Your task to perform on an android device: Is it going to rain tomorrow? Image 0: 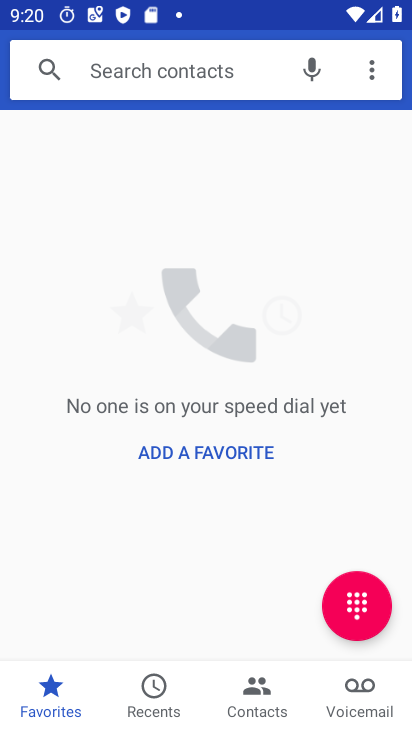
Step 0: press back button
Your task to perform on an android device: Is it going to rain tomorrow? Image 1: 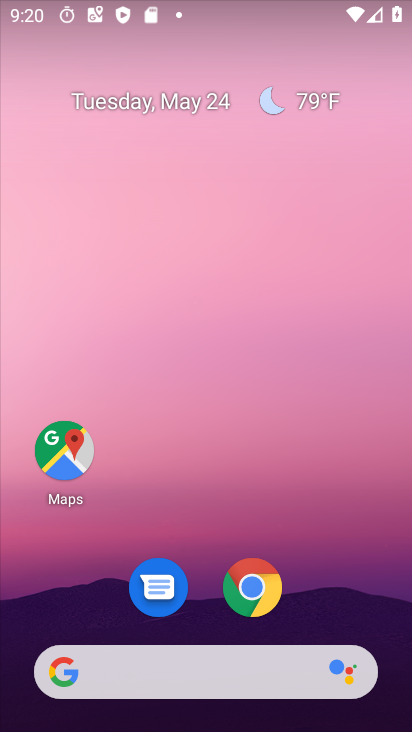
Step 1: drag from (331, 595) to (206, 97)
Your task to perform on an android device: Is it going to rain tomorrow? Image 2: 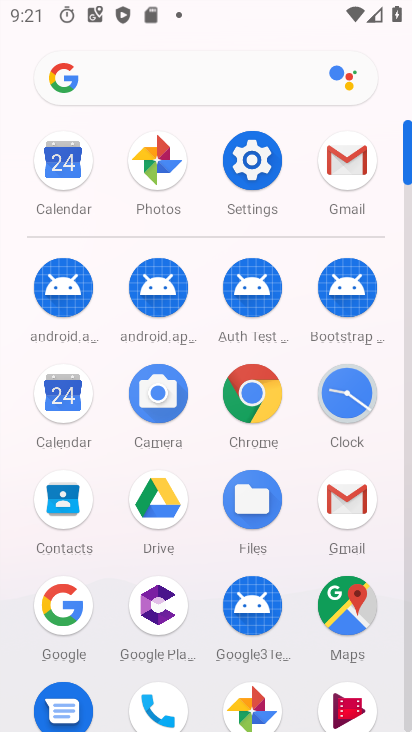
Step 2: click (60, 604)
Your task to perform on an android device: Is it going to rain tomorrow? Image 3: 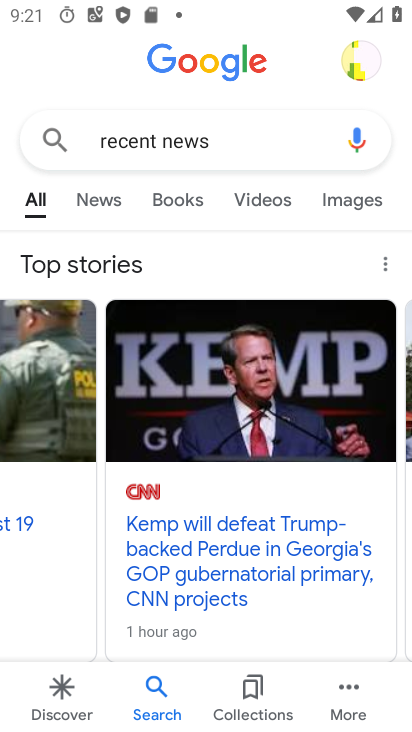
Step 3: click (239, 141)
Your task to perform on an android device: Is it going to rain tomorrow? Image 4: 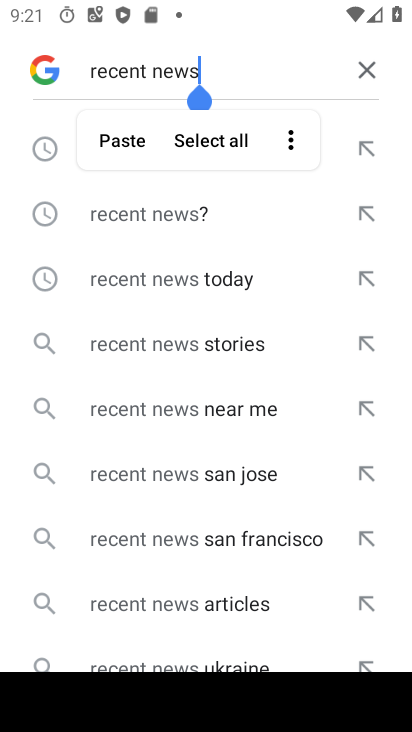
Step 4: click (372, 59)
Your task to perform on an android device: Is it going to rain tomorrow? Image 5: 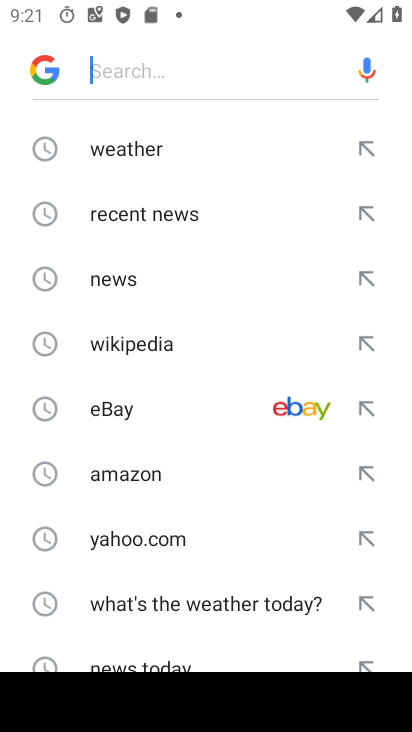
Step 5: type "Is it going to rain tomorrow"
Your task to perform on an android device: Is it going to rain tomorrow? Image 6: 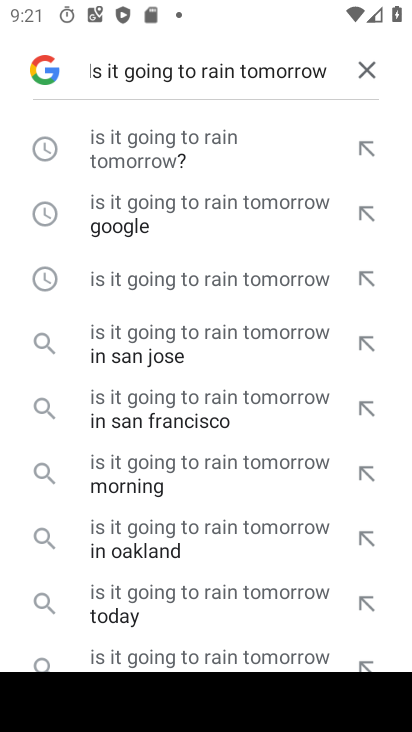
Step 6: click (137, 173)
Your task to perform on an android device: Is it going to rain tomorrow? Image 7: 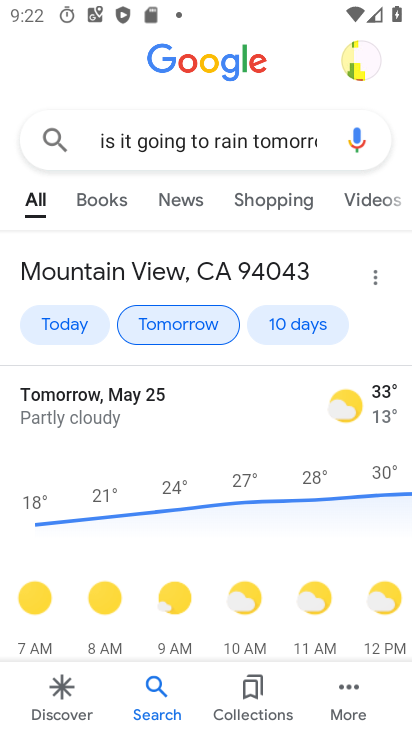
Step 7: task complete